Your task to perform on an android device: change notifications settings Image 0: 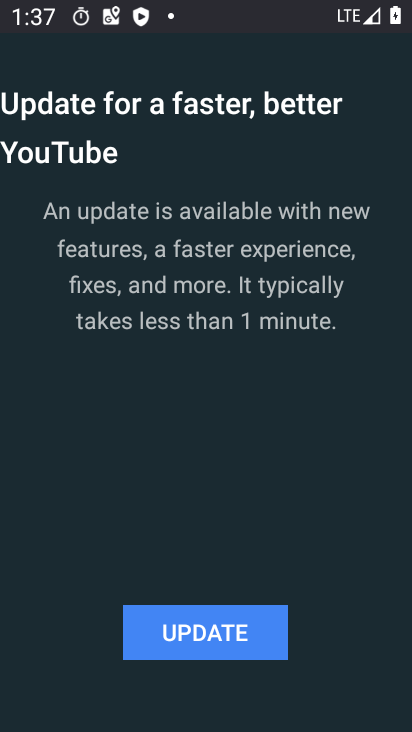
Step 0: press home button
Your task to perform on an android device: change notifications settings Image 1: 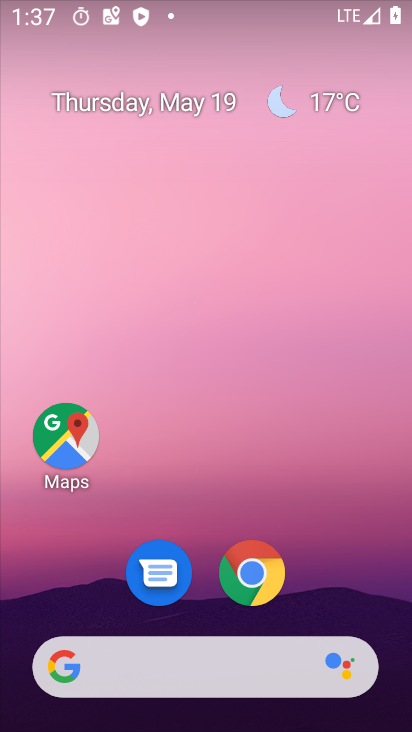
Step 1: drag from (208, 595) to (303, 74)
Your task to perform on an android device: change notifications settings Image 2: 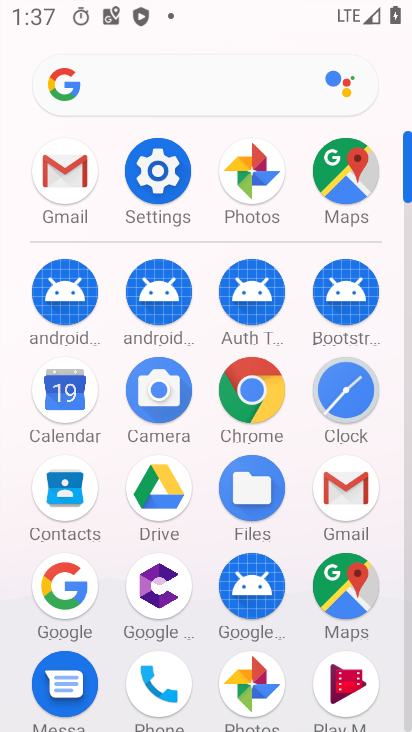
Step 2: click (153, 176)
Your task to perform on an android device: change notifications settings Image 3: 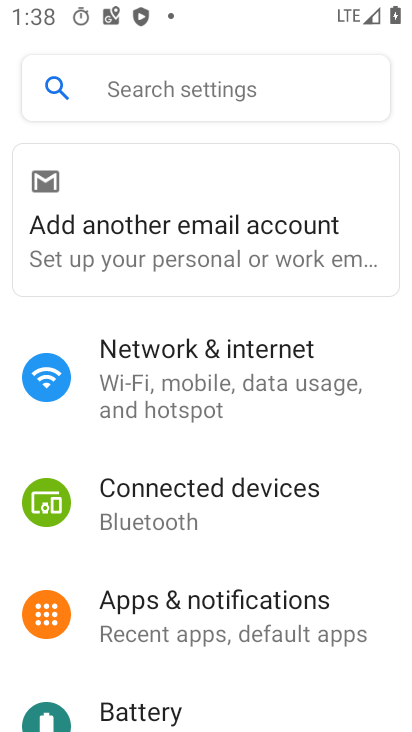
Step 3: click (174, 625)
Your task to perform on an android device: change notifications settings Image 4: 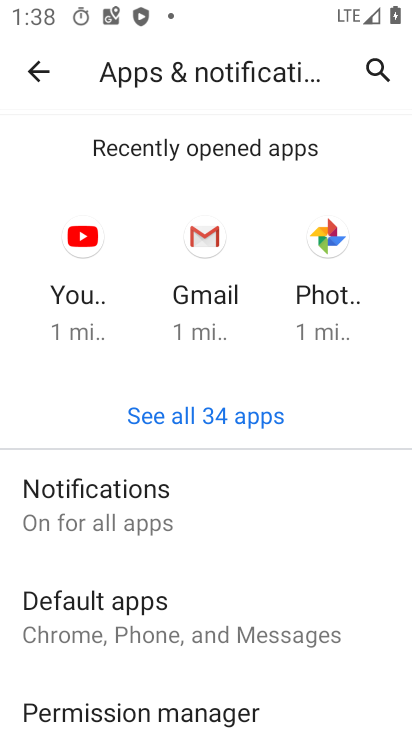
Step 4: click (118, 509)
Your task to perform on an android device: change notifications settings Image 5: 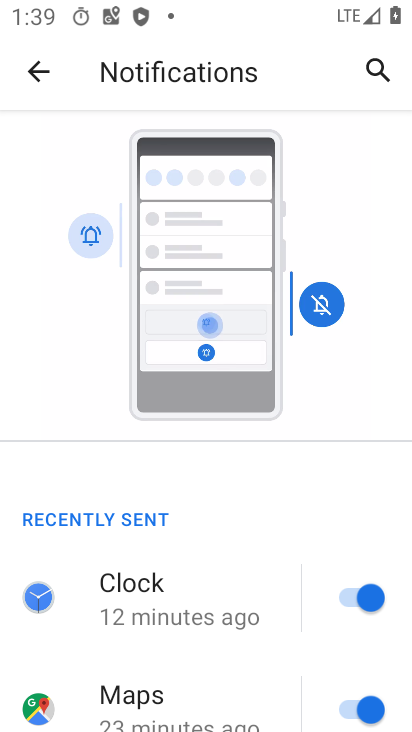
Step 5: drag from (202, 648) to (271, 239)
Your task to perform on an android device: change notifications settings Image 6: 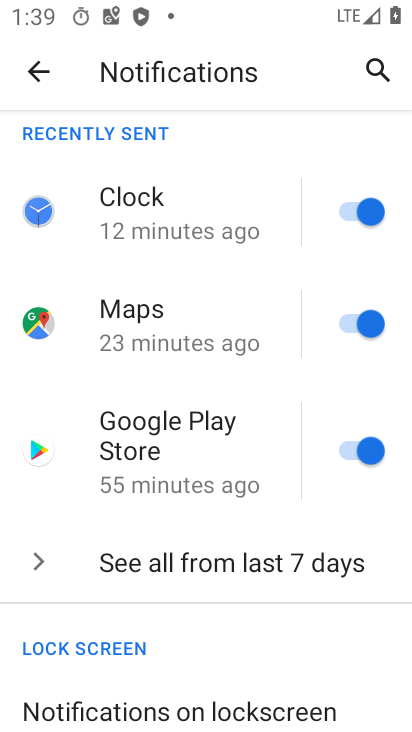
Step 6: drag from (173, 672) to (206, 401)
Your task to perform on an android device: change notifications settings Image 7: 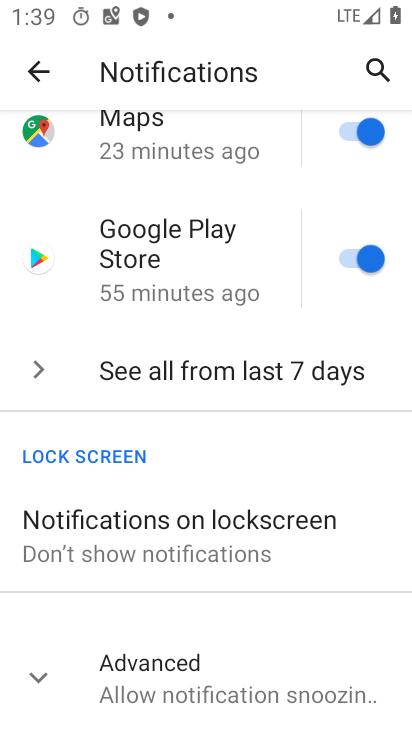
Step 7: drag from (183, 202) to (164, 645)
Your task to perform on an android device: change notifications settings Image 8: 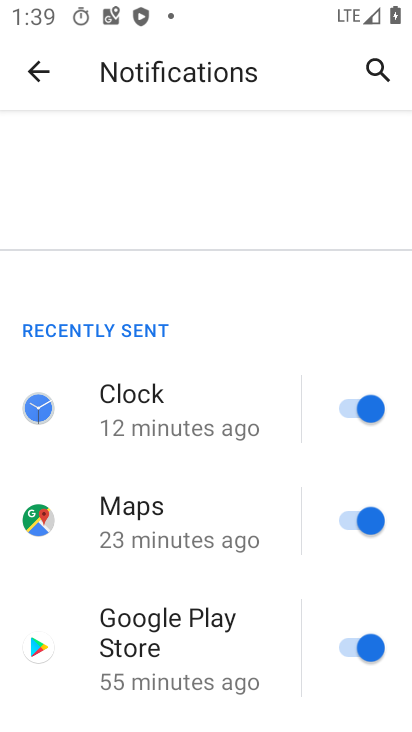
Step 8: drag from (129, 534) to (226, 28)
Your task to perform on an android device: change notifications settings Image 9: 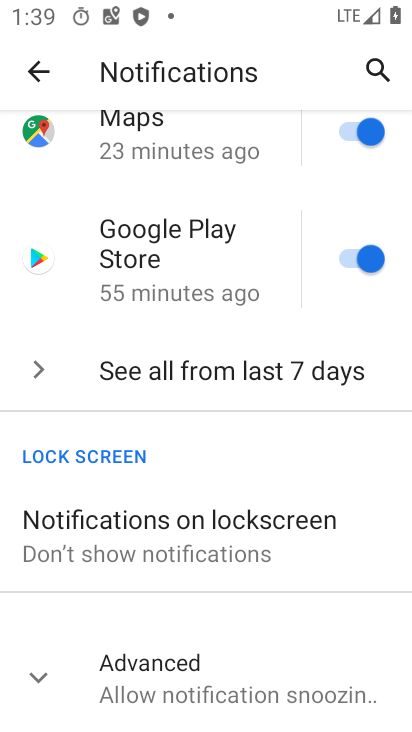
Step 9: click (153, 677)
Your task to perform on an android device: change notifications settings Image 10: 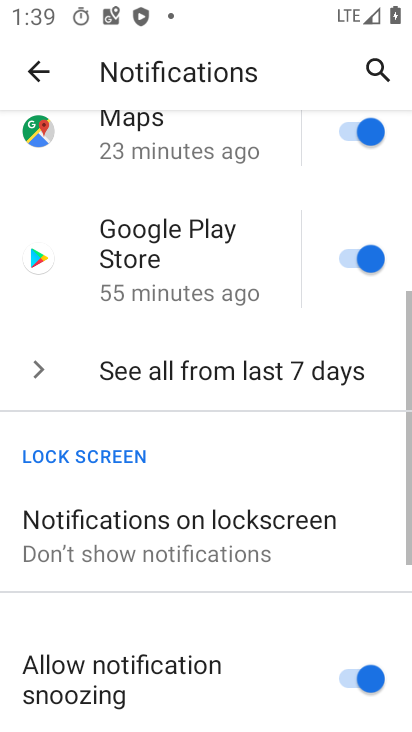
Step 10: drag from (166, 672) to (214, 368)
Your task to perform on an android device: change notifications settings Image 11: 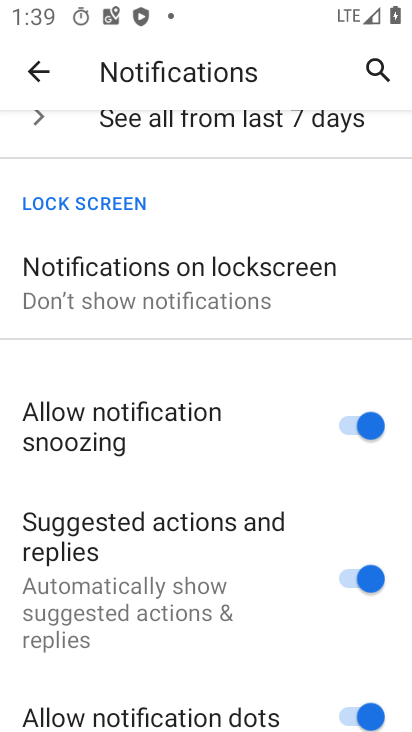
Step 11: click (366, 420)
Your task to perform on an android device: change notifications settings Image 12: 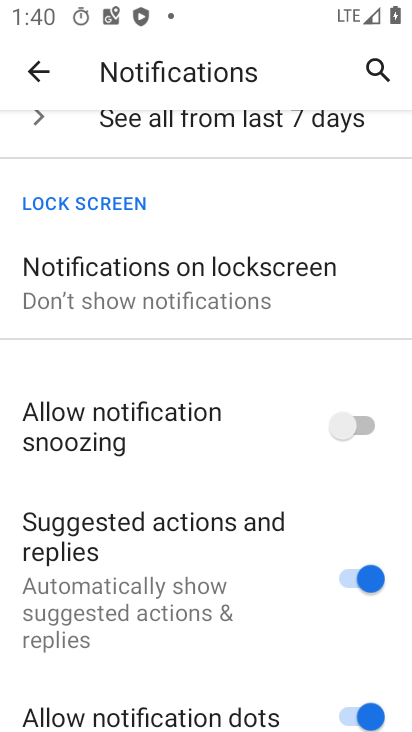
Step 12: task complete